Your task to perform on an android device: turn on notifications settings in the gmail app Image 0: 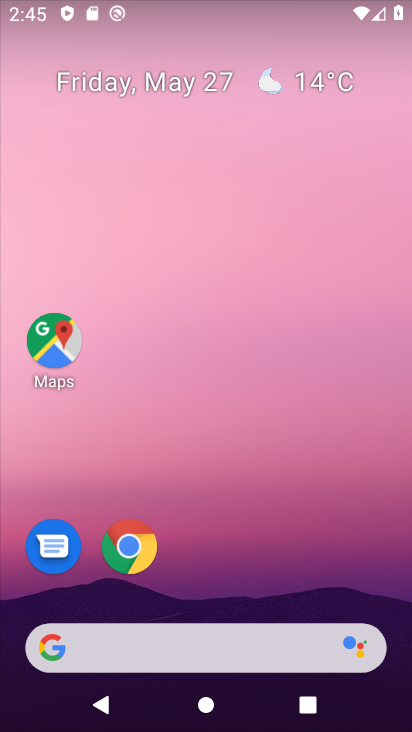
Step 0: drag from (128, 613) to (228, 180)
Your task to perform on an android device: turn on notifications settings in the gmail app Image 1: 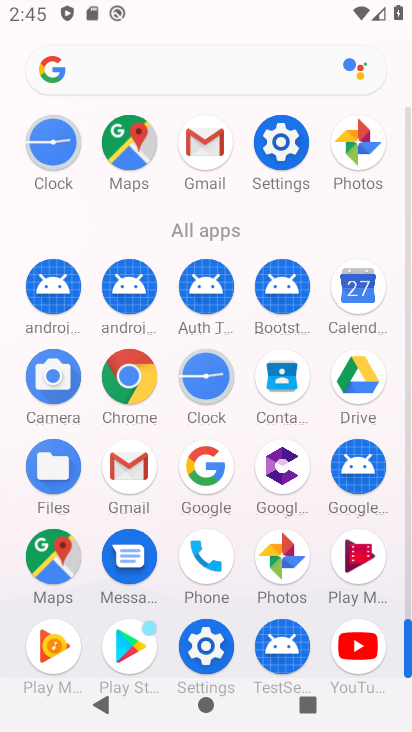
Step 1: click (132, 462)
Your task to perform on an android device: turn on notifications settings in the gmail app Image 2: 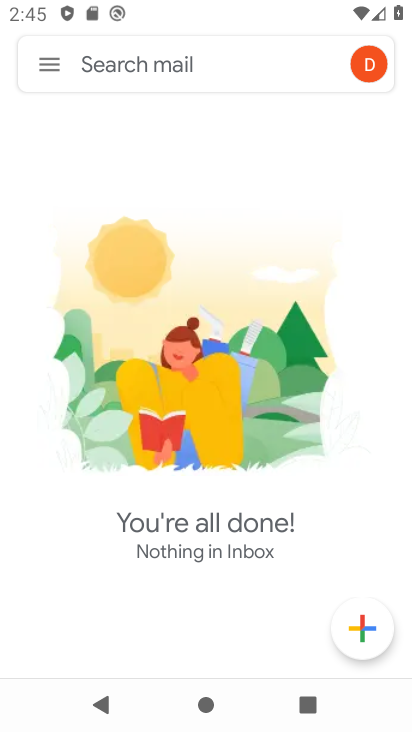
Step 2: click (63, 73)
Your task to perform on an android device: turn on notifications settings in the gmail app Image 3: 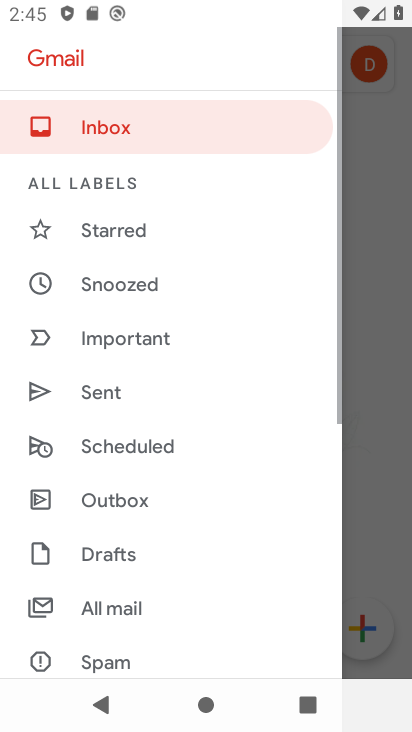
Step 3: drag from (150, 614) to (302, 187)
Your task to perform on an android device: turn on notifications settings in the gmail app Image 4: 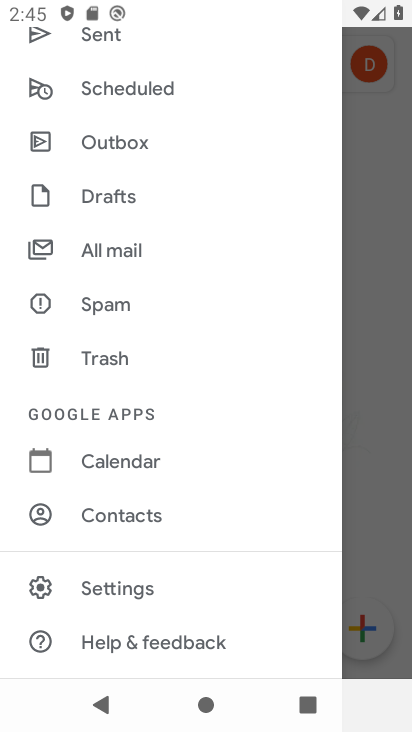
Step 4: click (168, 591)
Your task to perform on an android device: turn on notifications settings in the gmail app Image 5: 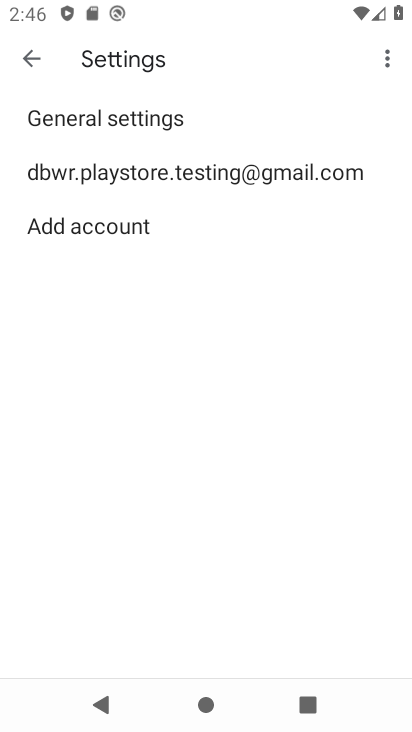
Step 5: click (208, 184)
Your task to perform on an android device: turn on notifications settings in the gmail app Image 6: 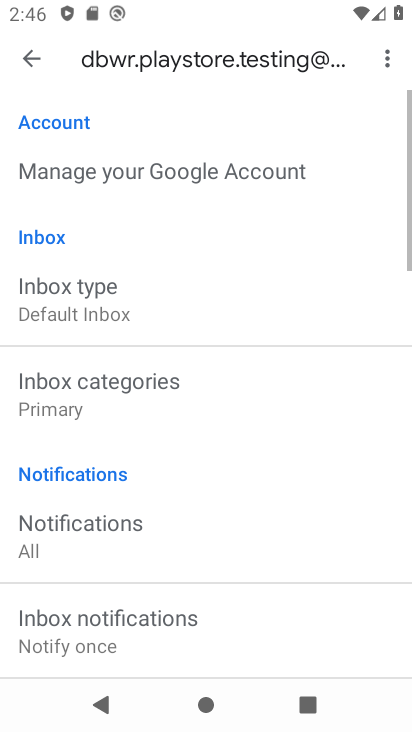
Step 6: drag from (144, 589) to (276, 294)
Your task to perform on an android device: turn on notifications settings in the gmail app Image 7: 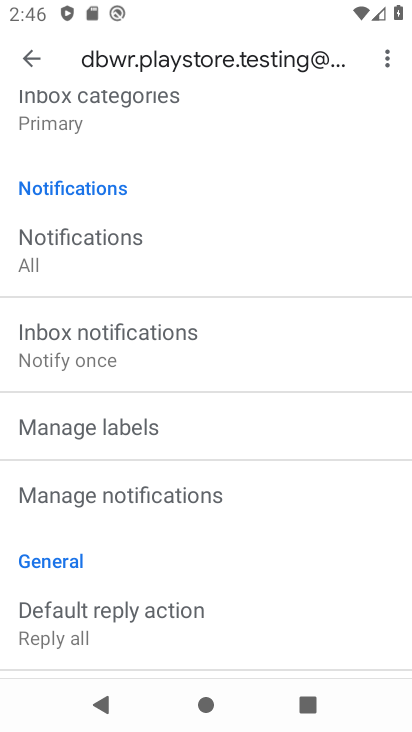
Step 7: click (221, 496)
Your task to perform on an android device: turn on notifications settings in the gmail app Image 8: 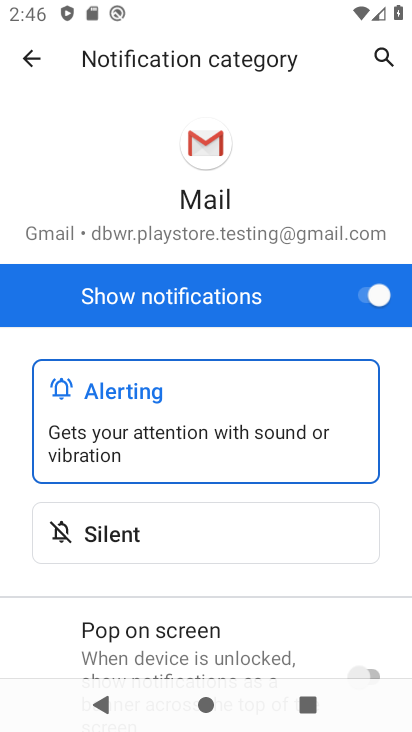
Step 8: task complete